Your task to perform on an android device: See recent photos Image 0: 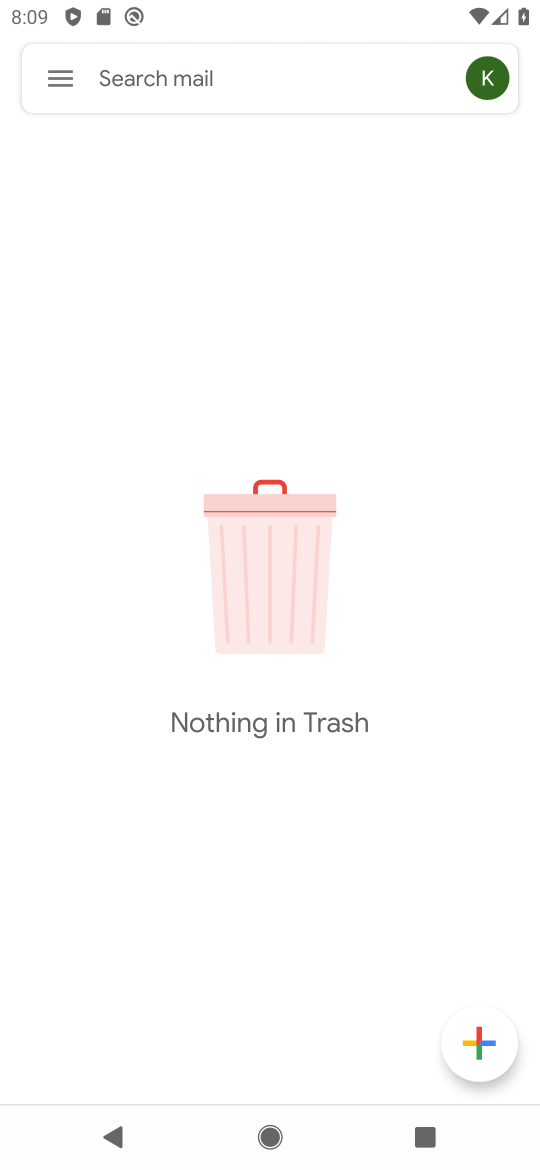
Step 0: press home button
Your task to perform on an android device: See recent photos Image 1: 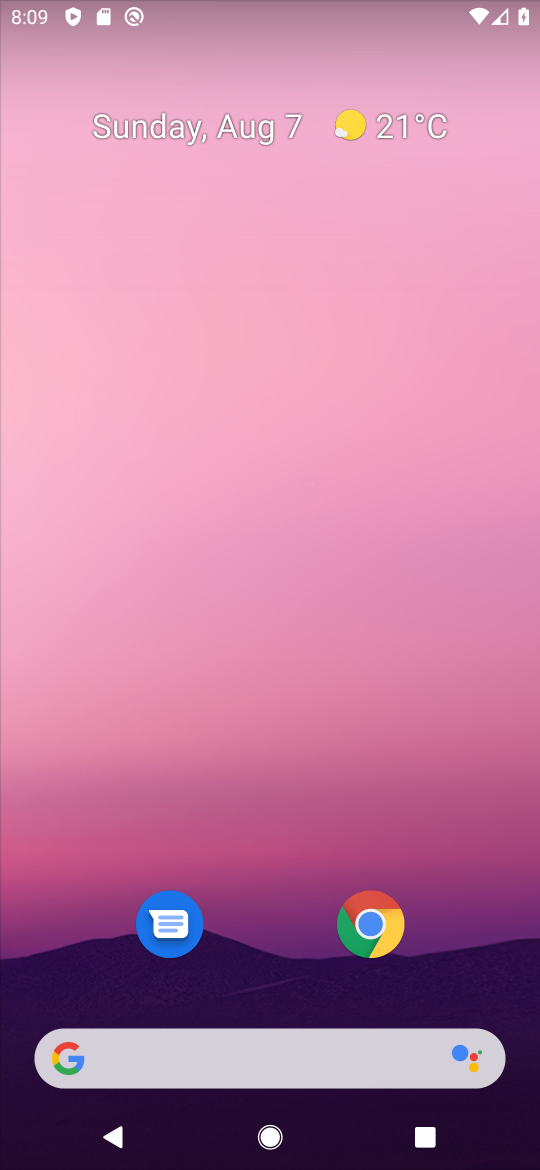
Step 1: drag from (259, 851) to (209, 7)
Your task to perform on an android device: See recent photos Image 2: 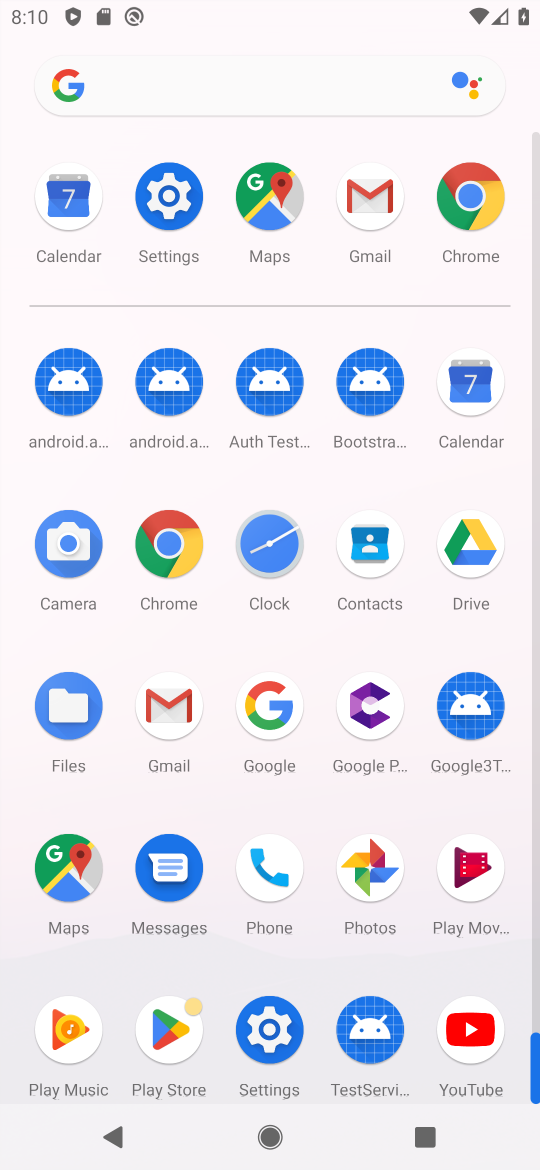
Step 2: click (382, 863)
Your task to perform on an android device: See recent photos Image 3: 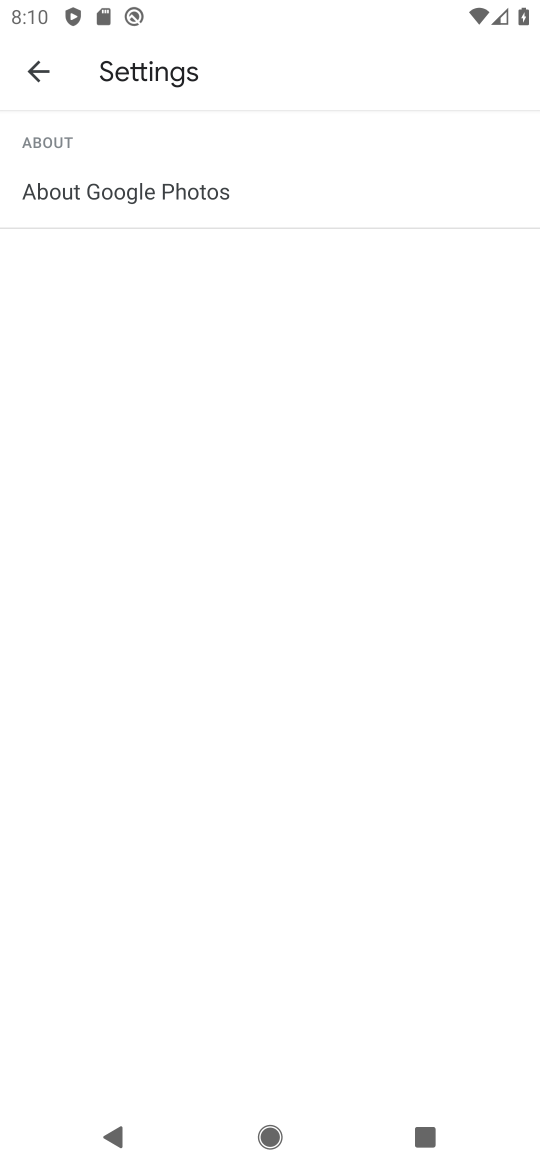
Step 3: click (34, 63)
Your task to perform on an android device: See recent photos Image 4: 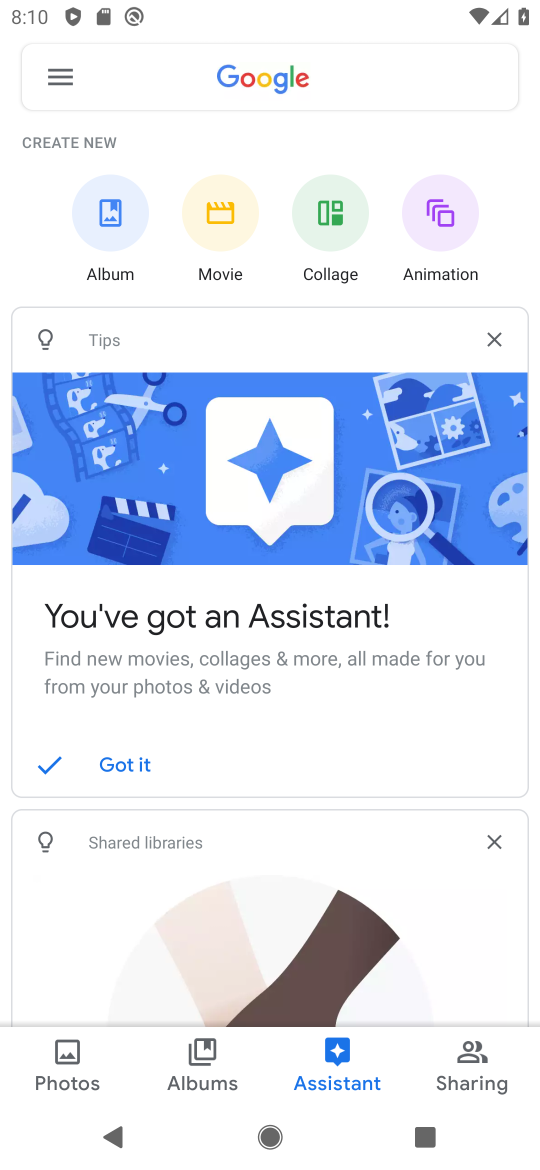
Step 4: click (43, 1059)
Your task to perform on an android device: See recent photos Image 5: 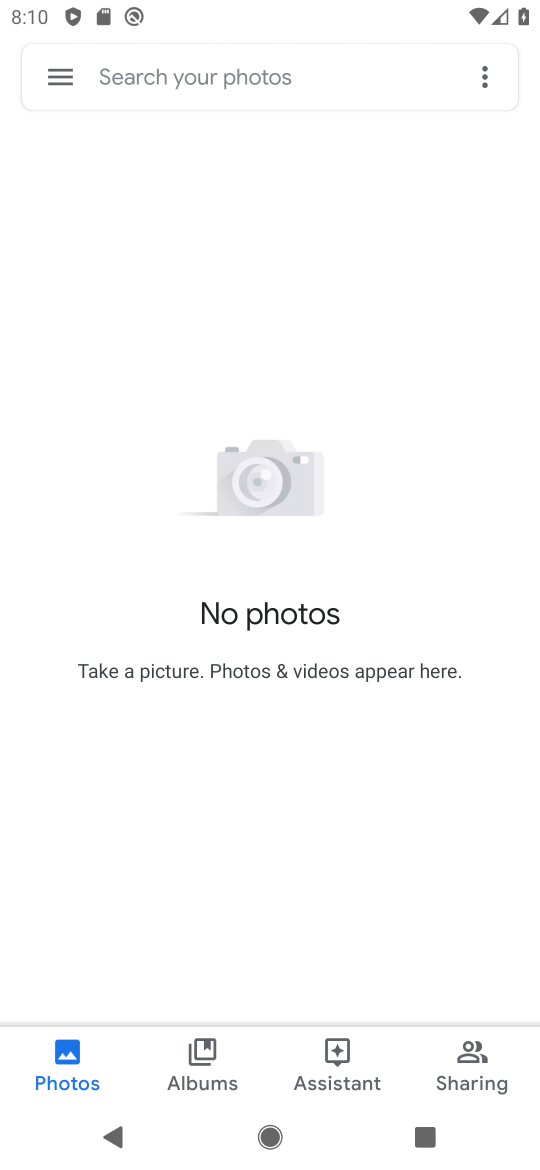
Step 5: task complete